Your task to perform on an android device: When is my next appointment? Image 0: 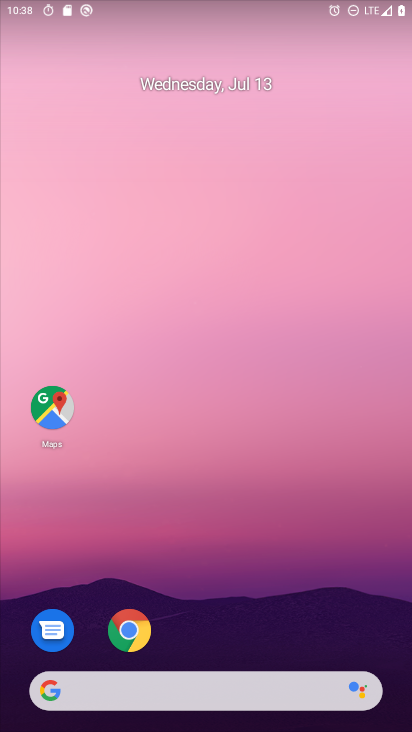
Step 0: drag from (360, 651) to (276, 37)
Your task to perform on an android device: When is my next appointment? Image 1: 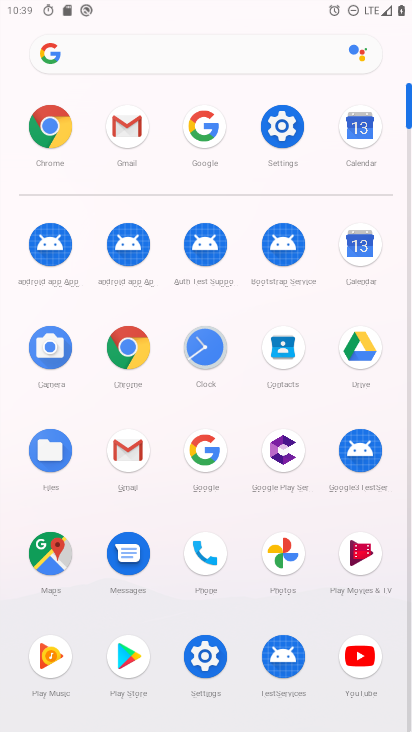
Step 1: click (347, 247)
Your task to perform on an android device: When is my next appointment? Image 2: 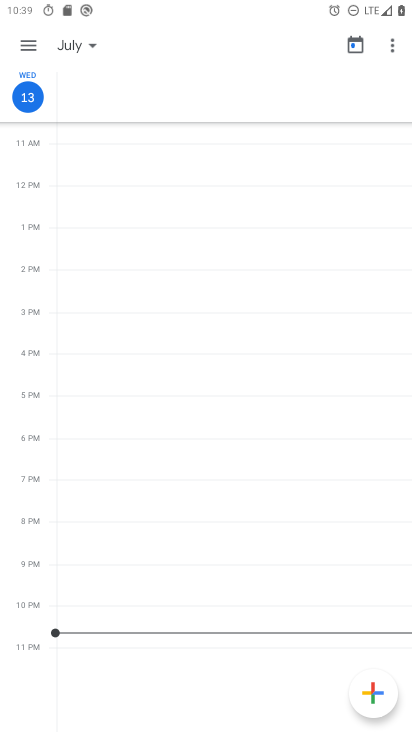
Step 2: task complete